Your task to perform on an android device: Turn off the flashlight Image 0: 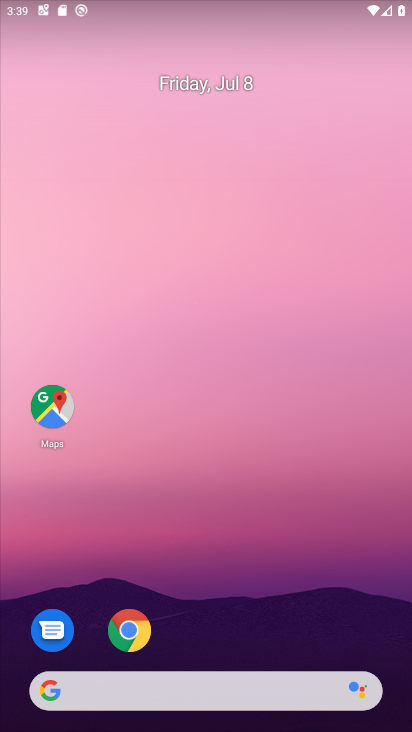
Step 0: drag from (295, 509) to (267, 91)
Your task to perform on an android device: Turn off the flashlight Image 1: 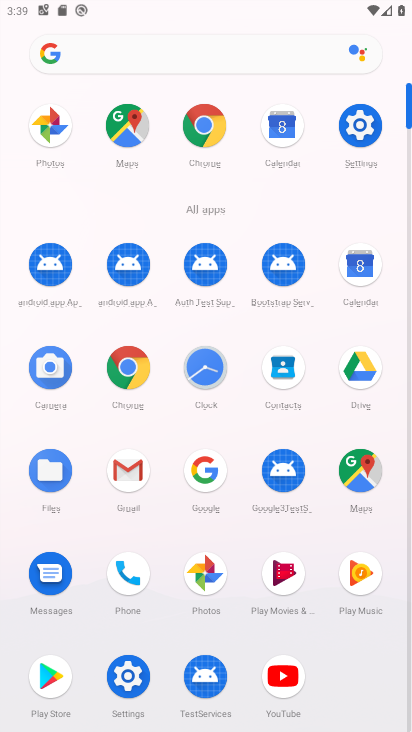
Step 1: click (360, 121)
Your task to perform on an android device: Turn off the flashlight Image 2: 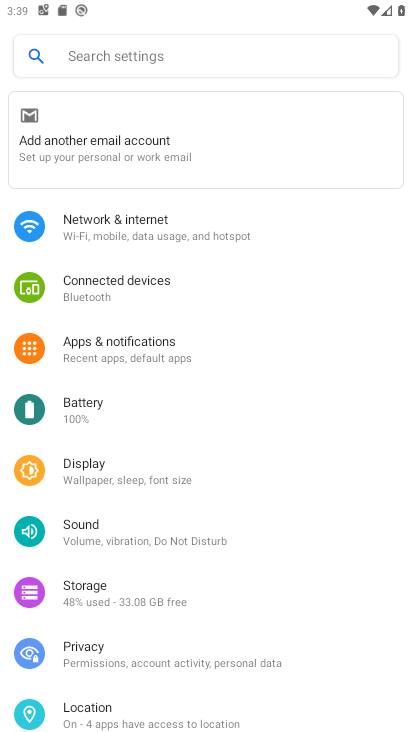
Step 2: click (89, 469)
Your task to perform on an android device: Turn off the flashlight Image 3: 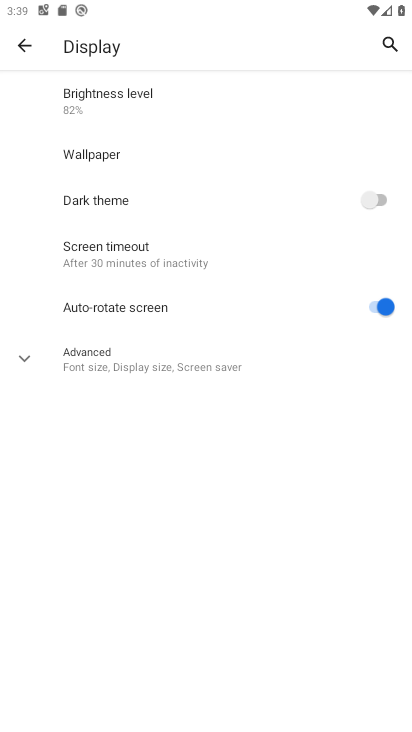
Step 3: task complete